Your task to perform on an android device: Open Chrome and go to the settings page Image 0: 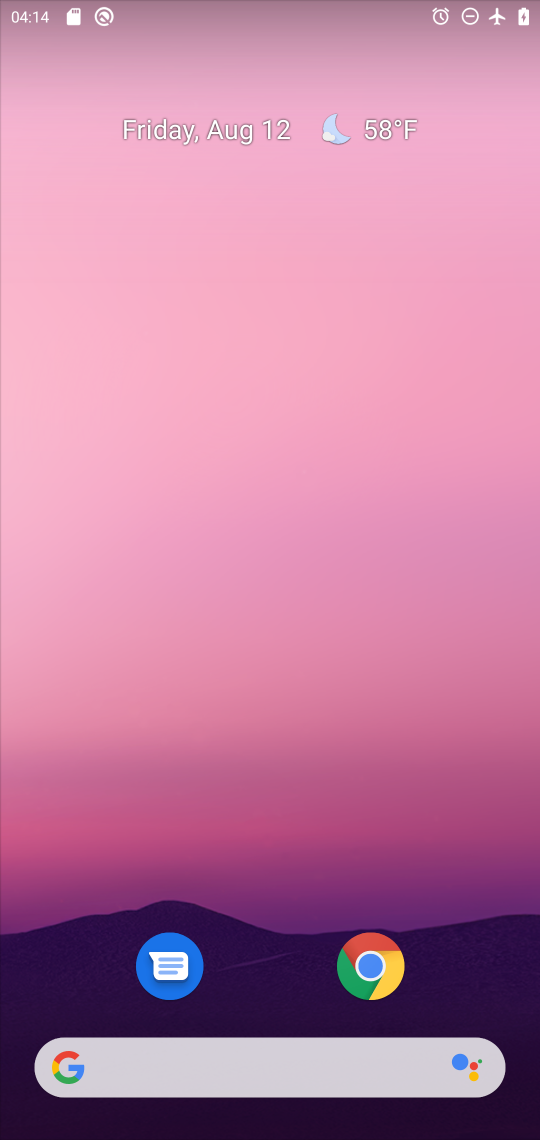
Step 0: drag from (258, 808) to (332, 74)
Your task to perform on an android device: Open Chrome and go to the settings page Image 1: 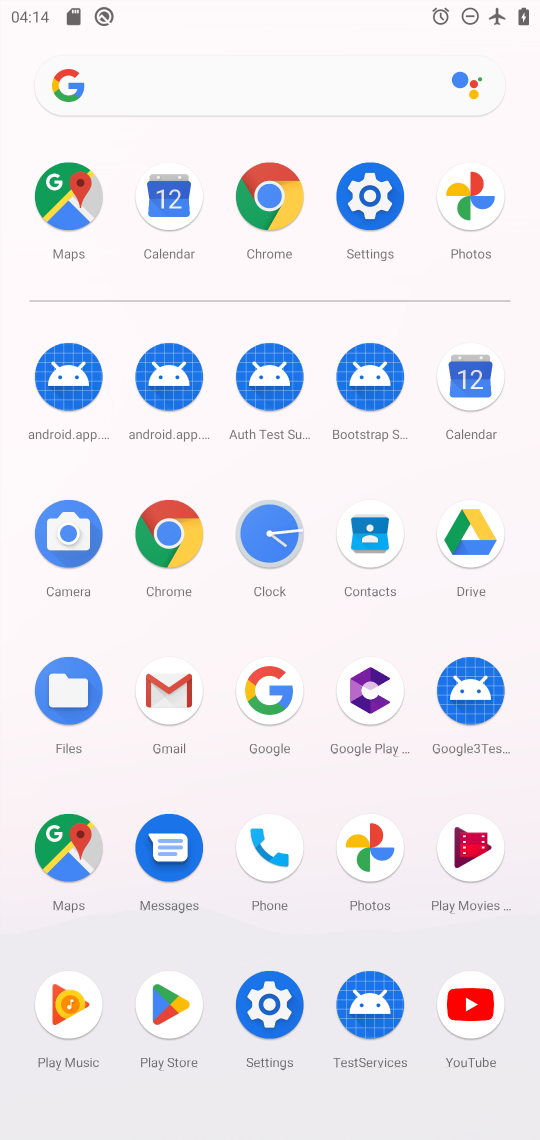
Step 1: click (172, 533)
Your task to perform on an android device: Open Chrome and go to the settings page Image 2: 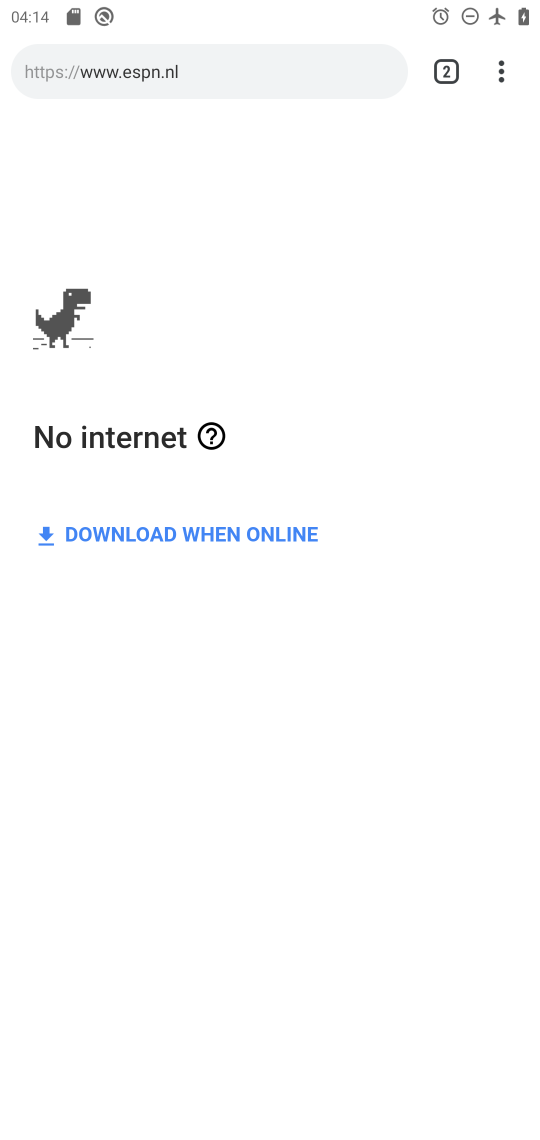
Step 2: task complete